Your task to perform on an android device: Open calendar and show me the third week of next month Image 0: 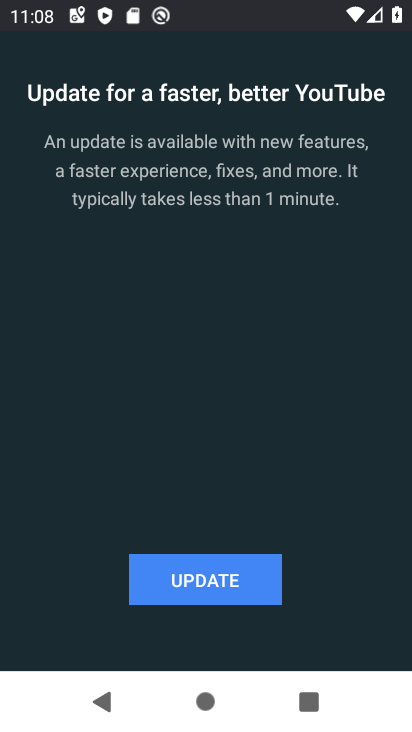
Step 0: press home button
Your task to perform on an android device: Open calendar and show me the third week of next month Image 1: 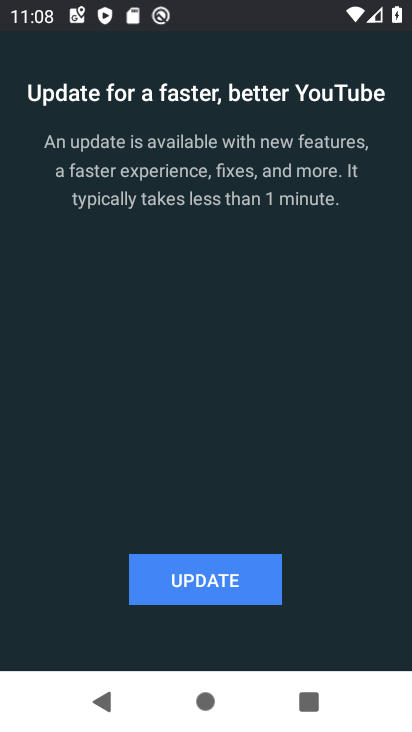
Step 1: press home button
Your task to perform on an android device: Open calendar and show me the third week of next month Image 2: 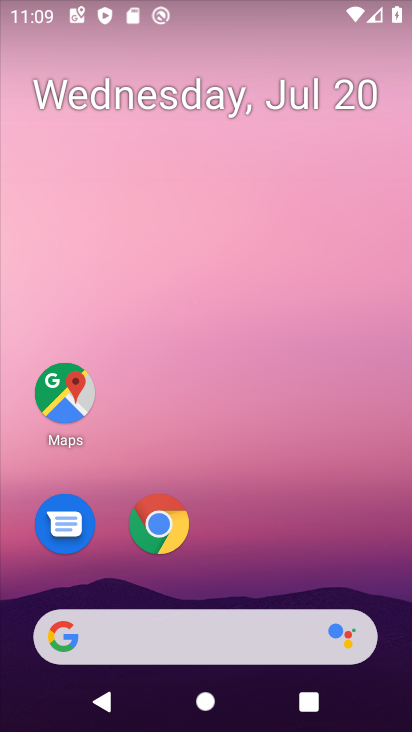
Step 2: drag from (265, 535) to (281, 4)
Your task to perform on an android device: Open calendar and show me the third week of next month Image 3: 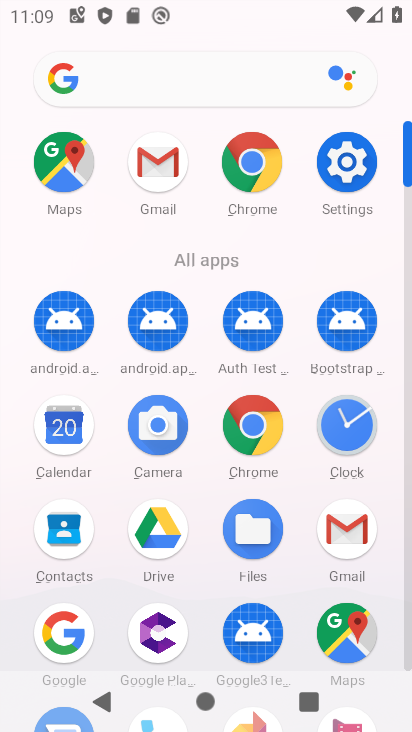
Step 3: click (73, 434)
Your task to perform on an android device: Open calendar and show me the third week of next month Image 4: 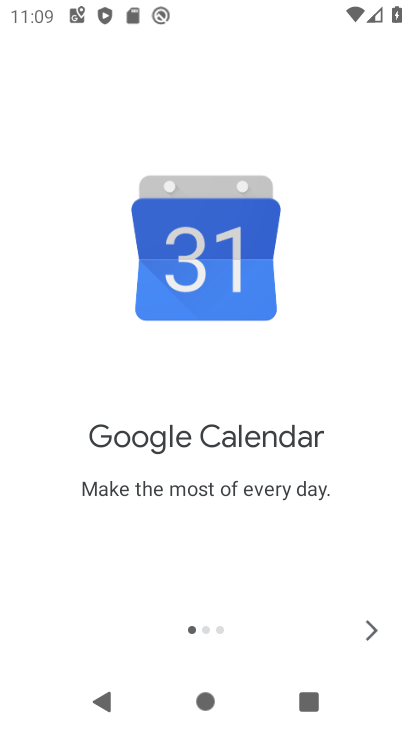
Step 4: click (372, 626)
Your task to perform on an android device: Open calendar and show me the third week of next month Image 5: 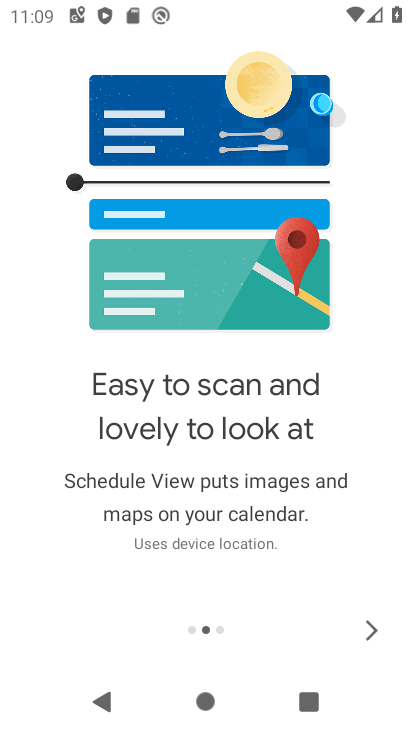
Step 5: click (372, 626)
Your task to perform on an android device: Open calendar and show me the third week of next month Image 6: 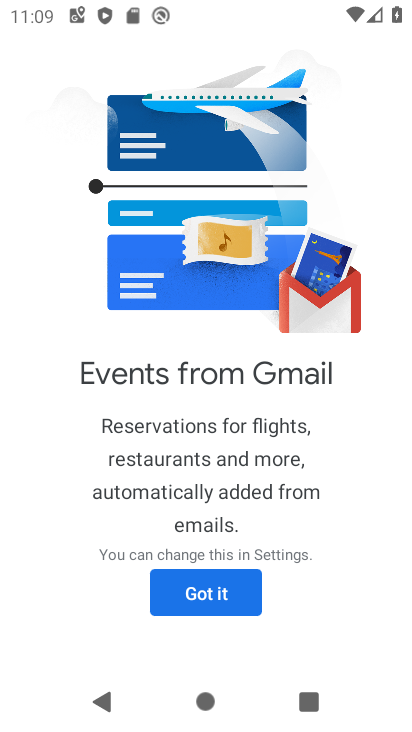
Step 6: click (242, 595)
Your task to perform on an android device: Open calendar and show me the third week of next month Image 7: 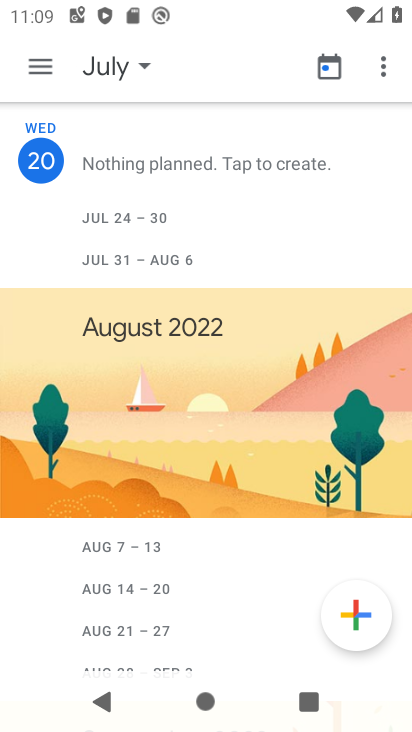
Step 7: click (36, 59)
Your task to perform on an android device: Open calendar and show me the third week of next month Image 8: 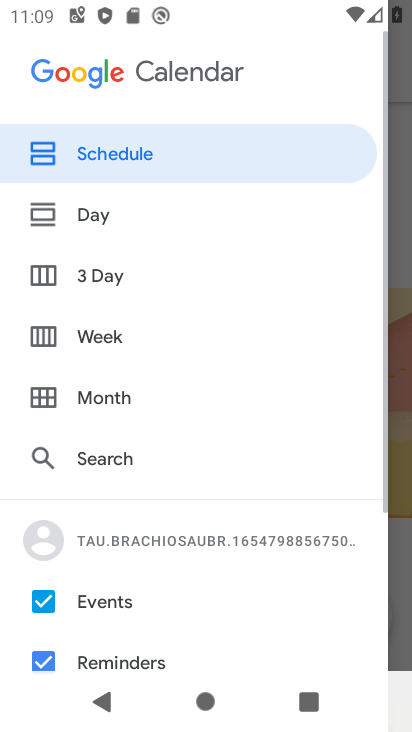
Step 8: click (45, 391)
Your task to perform on an android device: Open calendar and show me the third week of next month Image 9: 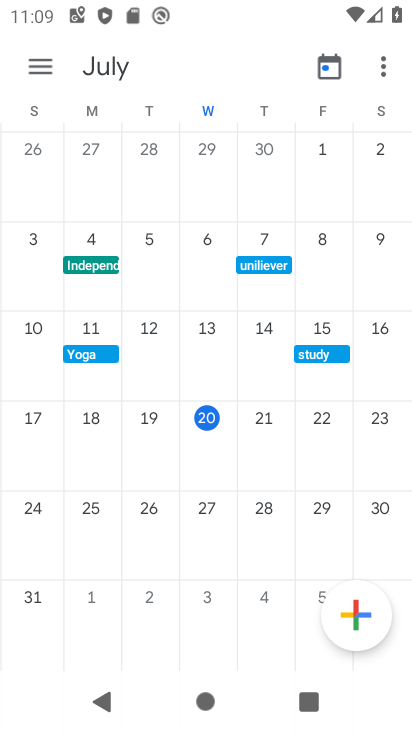
Step 9: drag from (368, 426) to (0, 375)
Your task to perform on an android device: Open calendar and show me the third week of next month Image 10: 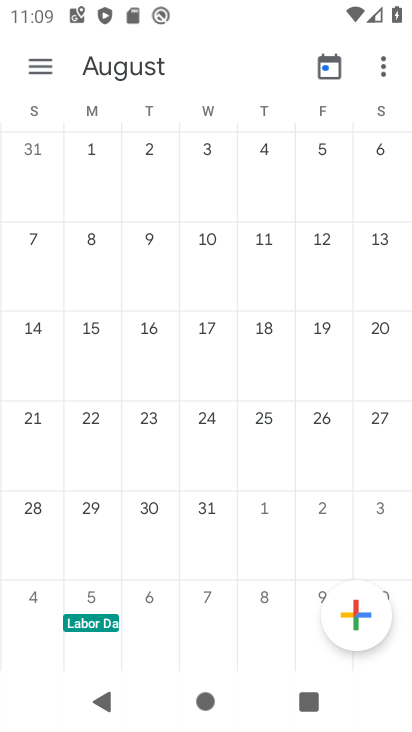
Step 10: click (30, 420)
Your task to perform on an android device: Open calendar and show me the third week of next month Image 11: 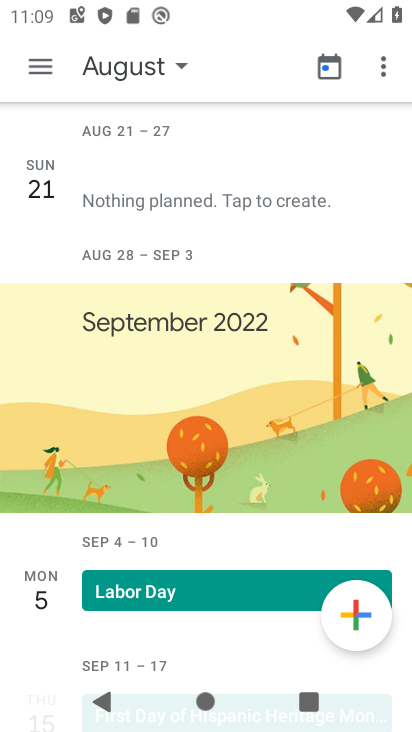
Step 11: click (40, 68)
Your task to perform on an android device: Open calendar and show me the third week of next month Image 12: 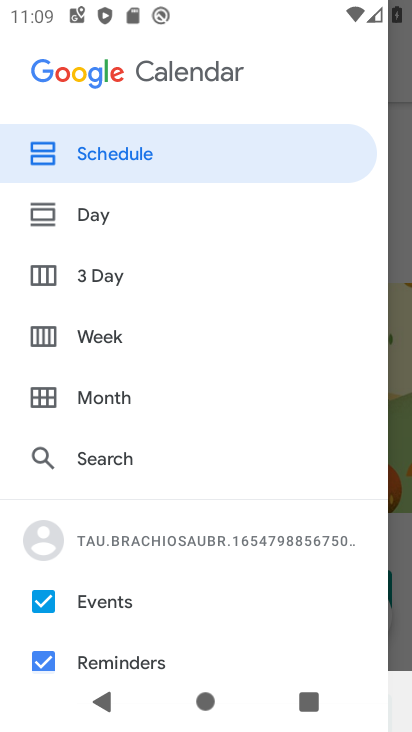
Step 12: click (90, 337)
Your task to perform on an android device: Open calendar and show me the third week of next month Image 13: 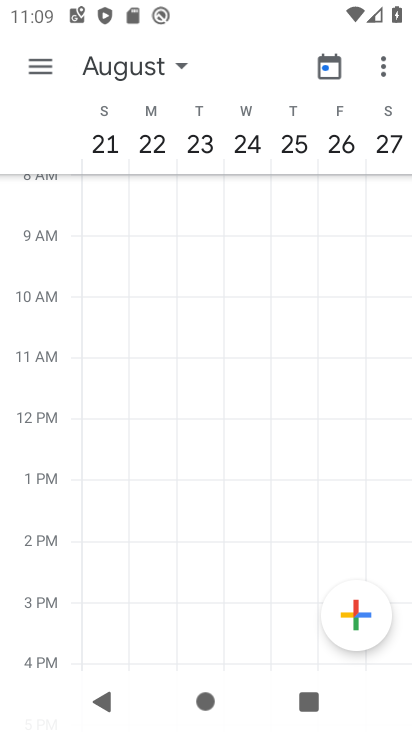
Step 13: task complete